Your task to perform on an android device: snooze an email in the gmail app Image 0: 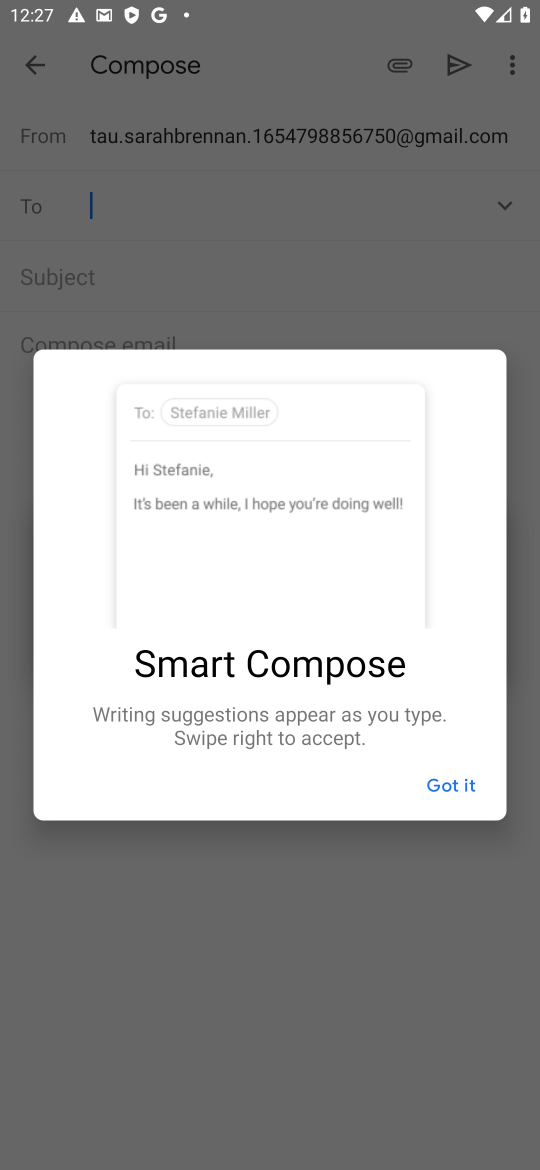
Step 0: task complete